Your task to perform on an android device: add a contact in the contacts app Image 0: 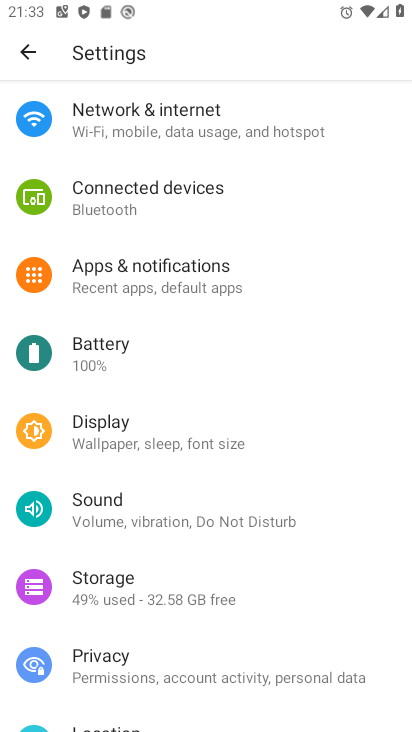
Step 0: press home button
Your task to perform on an android device: add a contact in the contacts app Image 1: 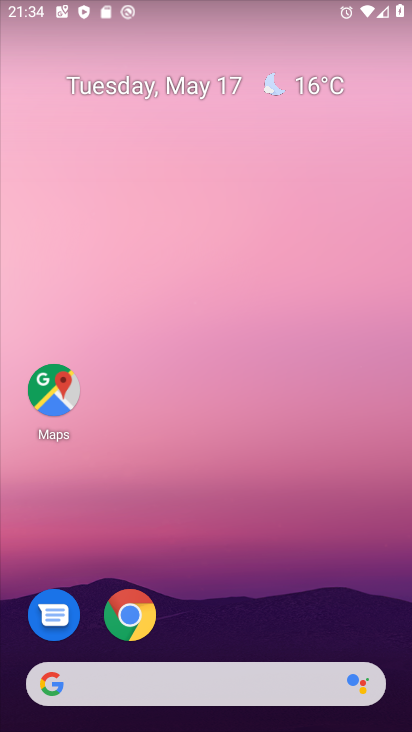
Step 1: drag from (253, 576) to (234, 200)
Your task to perform on an android device: add a contact in the contacts app Image 2: 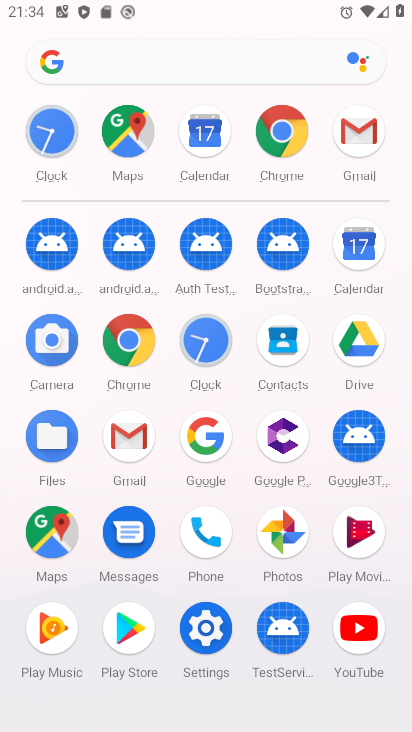
Step 2: click (276, 333)
Your task to perform on an android device: add a contact in the contacts app Image 3: 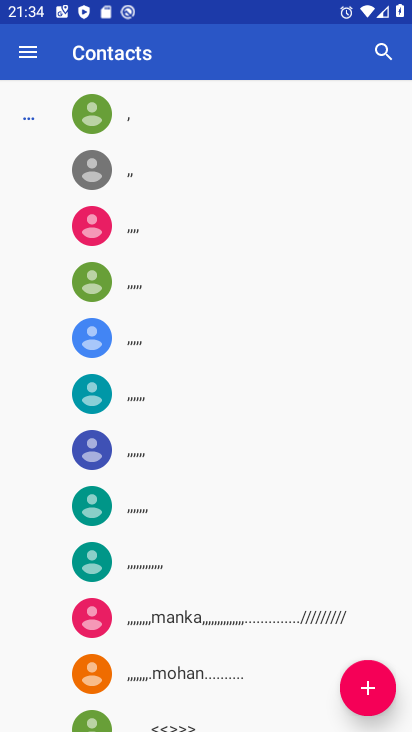
Step 3: click (376, 683)
Your task to perform on an android device: add a contact in the contacts app Image 4: 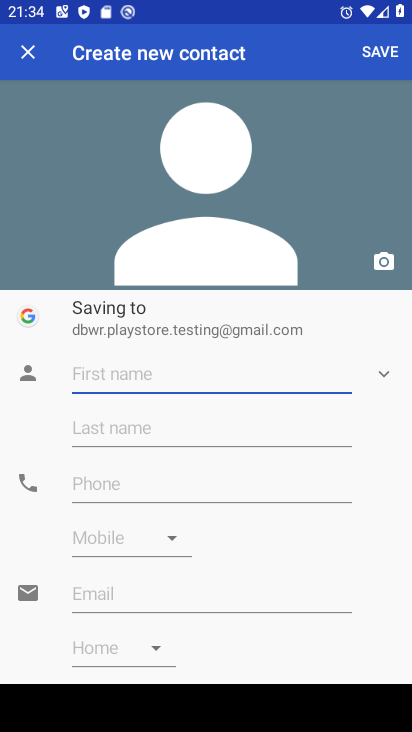
Step 4: type "ddddd"
Your task to perform on an android device: add a contact in the contacts app Image 5: 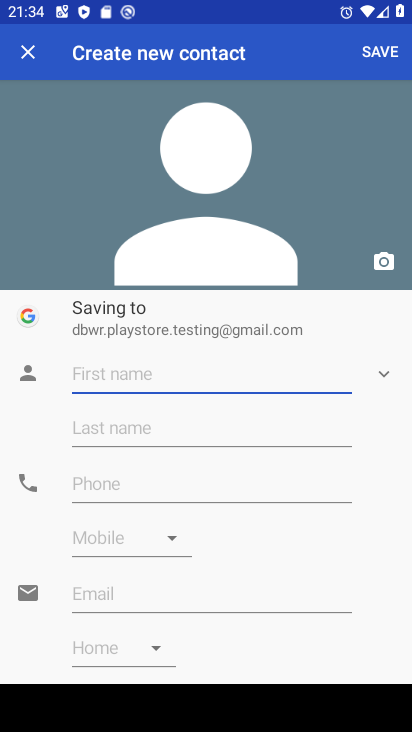
Step 5: click (205, 485)
Your task to perform on an android device: add a contact in the contacts app Image 6: 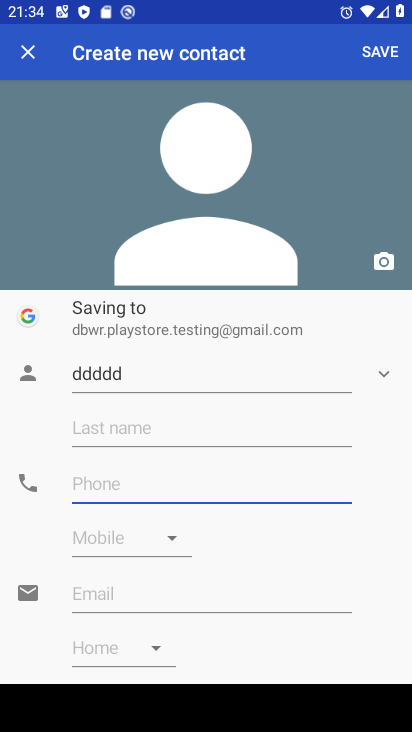
Step 6: type "55444554466"
Your task to perform on an android device: add a contact in the contacts app Image 7: 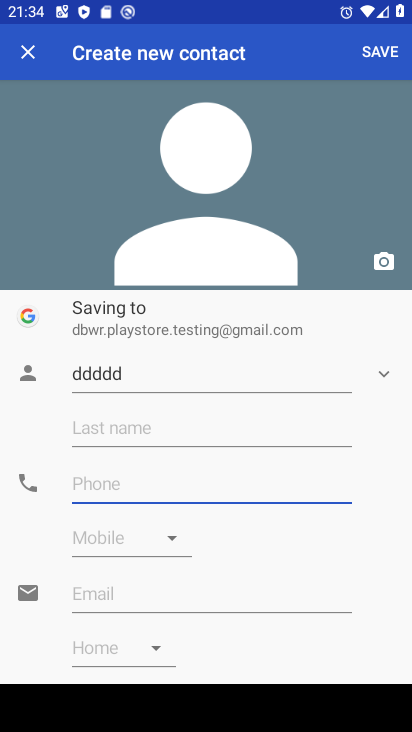
Step 7: click (395, 58)
Your task to perform on an android device: add a contact in the contacts app Image 8: 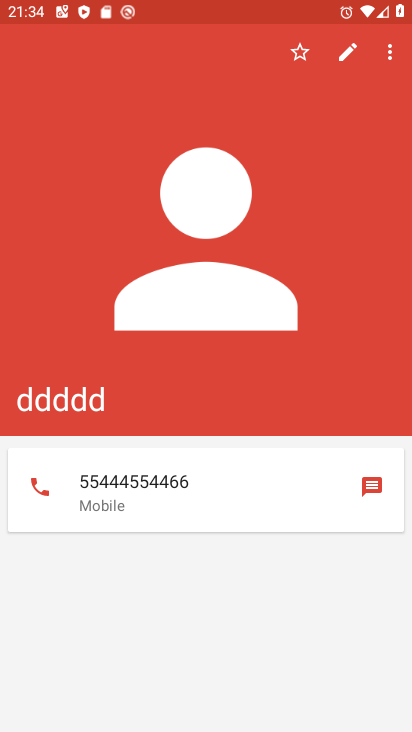
Step 8: task complete